Your task to perform on an android device: Is it going to rain today? Image 0: 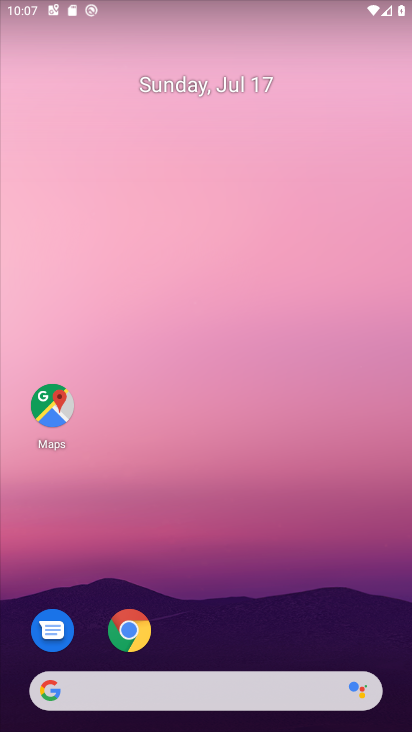
Step 0: drag from (231, 608) to (262, 5)
Your task to perform on an android device: Is it going to rain today? Image 1: 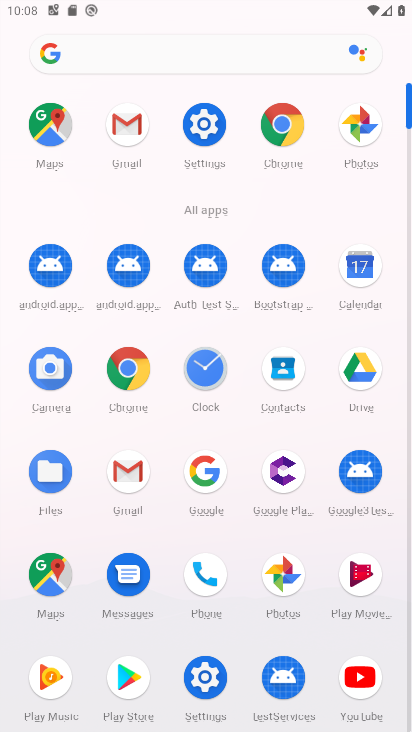
Step 1: press home button
Your task to perform on an android device: Is it going to rain today? Image 2: 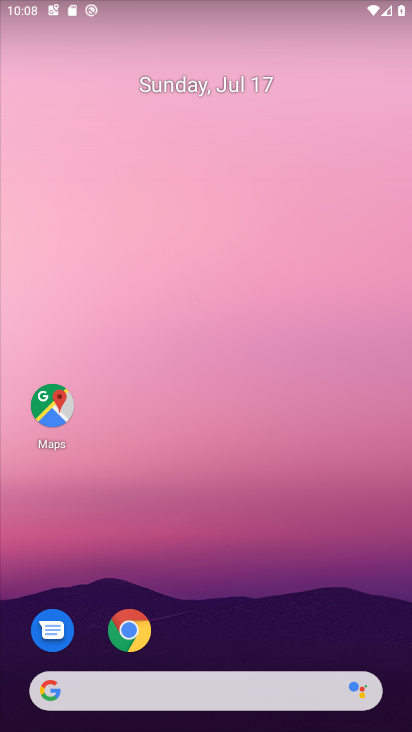
Step 2: click (229, 701)
Your task to perform on an android device: Is it going to rain today? Image 3: 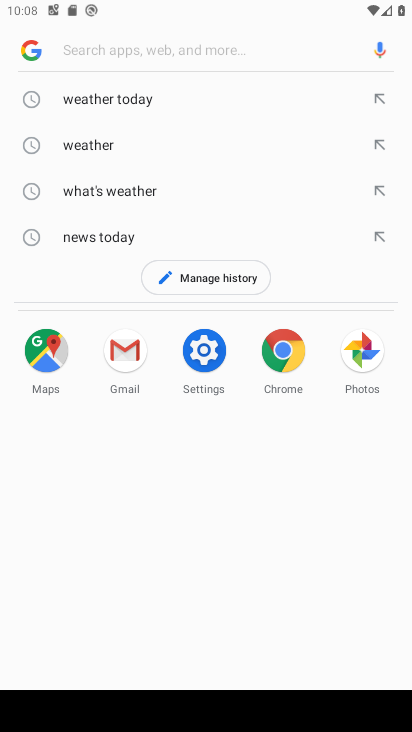
Step 3: click (97, 147)
Your task to perform on an android device: Is it going to rain today? Image 4: 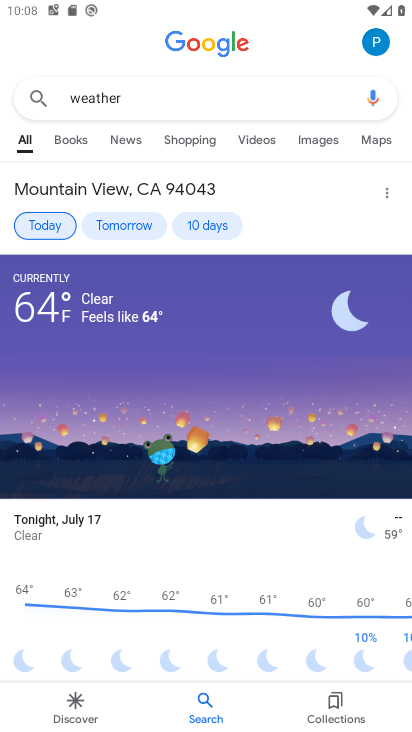
Step 4: click (55, 226)
Your task to perform on an android device: Is it going to rain today? Image 5: 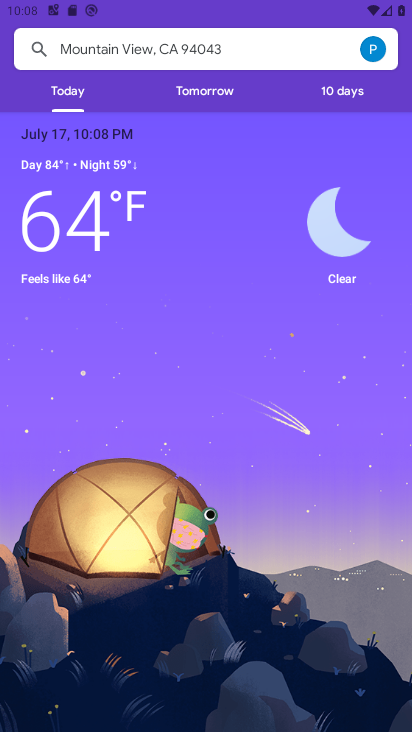
Step 5: task complete